Your task to perform on an android device: toggle airplane mode Image 0: 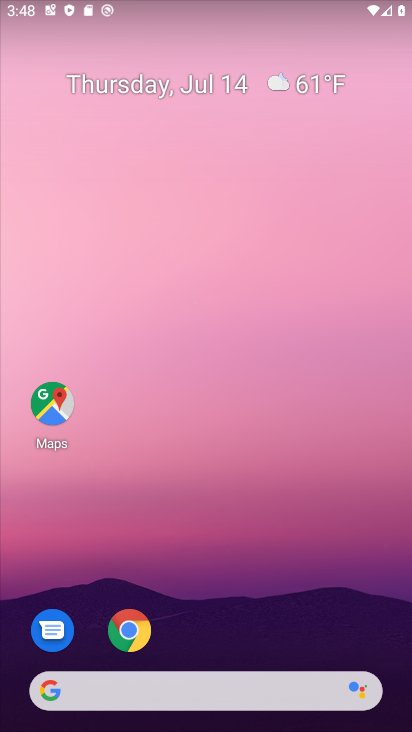
Step 0: drag from (323, 3) to (267, 378)
Your task to perform on an android device: toggle airplane mode Image 1: 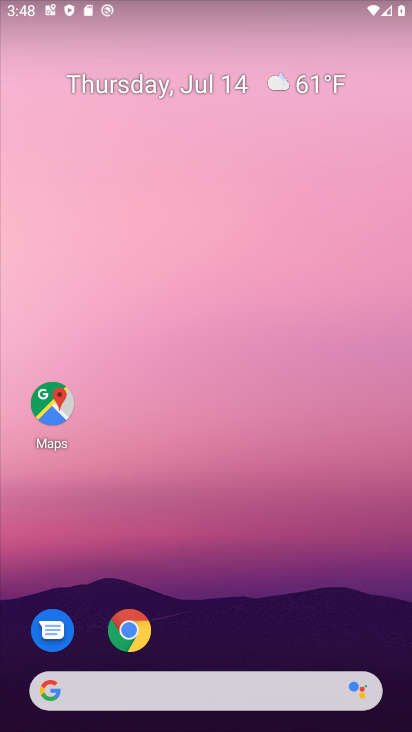
Step 1: drag from (311, 8) to (238, 693)
Your task to perform on an android device: toggle airplane mode Image 2: 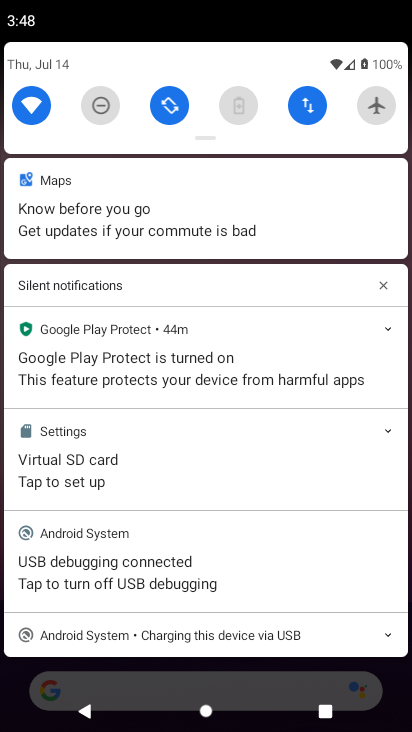
Step 2: click (380, 107)
Your task to perform on an android device: toggle airplane mode Image 3: 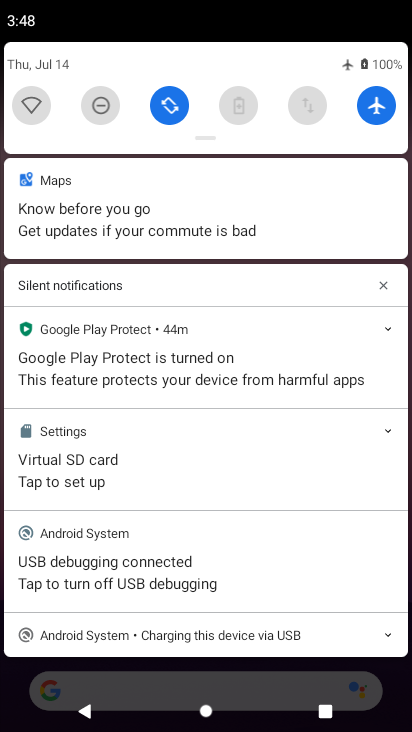
Step 3: task complete